Your task to perform on an android device: Is it going to rain this weekend? Image 0: 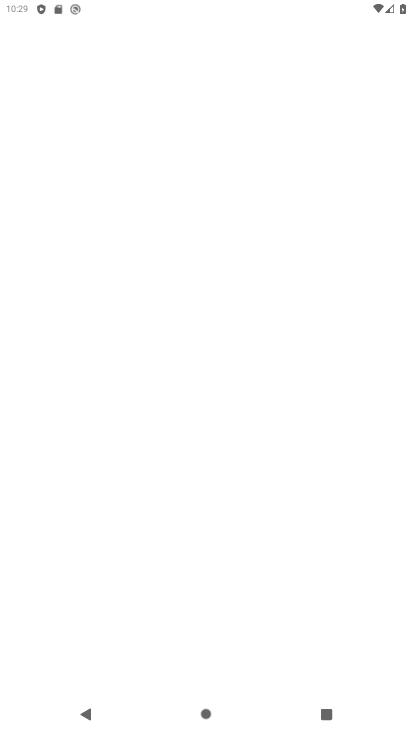
Step 0: press home button
Your task to perform on an android device: Is it going to rain this weekend? Image 1: 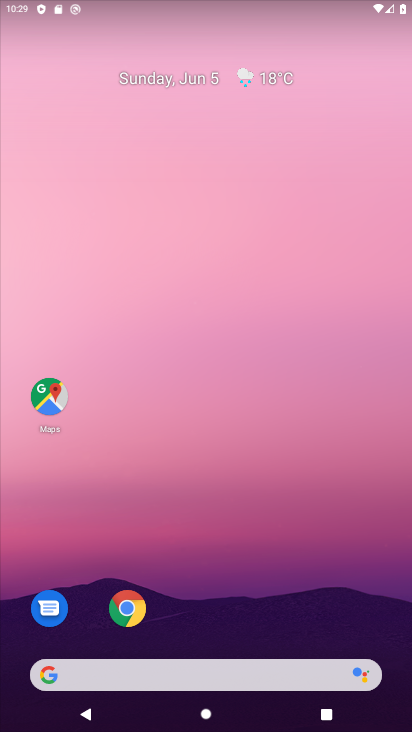
Step 1: click (191, 678)
Your task to perform on an android device: Is it going to rain this weekend? Image 2: 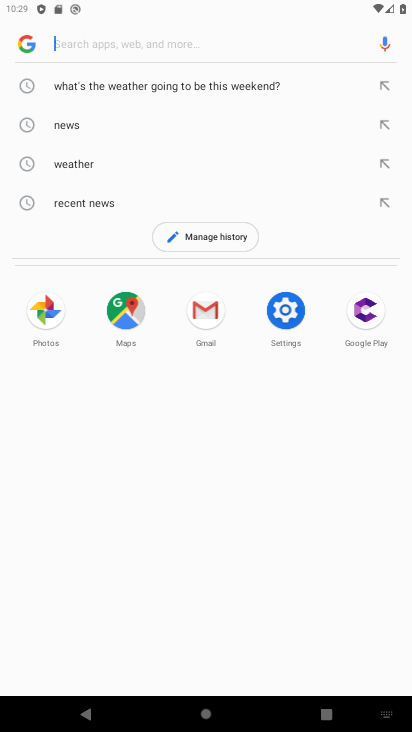
Step 2: type "is it going to rain this weekend"
Your task to perform on an android device: Is it going to rain this weekend? Image 3: 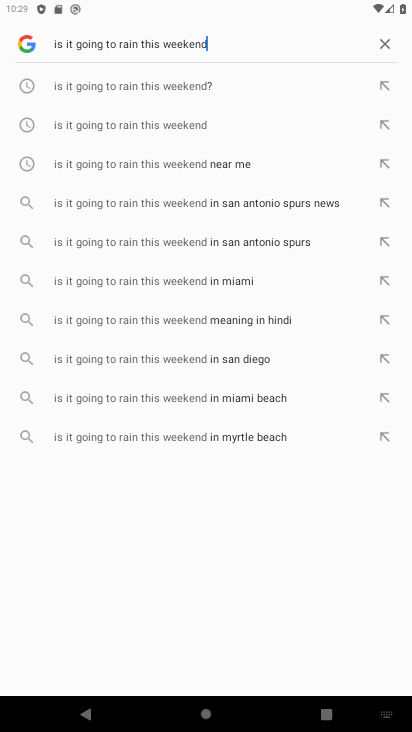
Step 3: click (132, 79)
Your task to perform on an android device: Is it going to rain this weekend? Image 4: 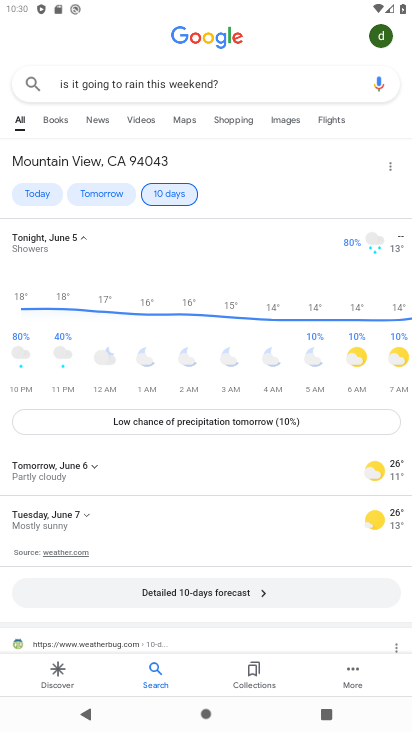
Step 4: click (196, 595)
Your task to perform on an android device: Is it going to rain this weekend? Image 5: 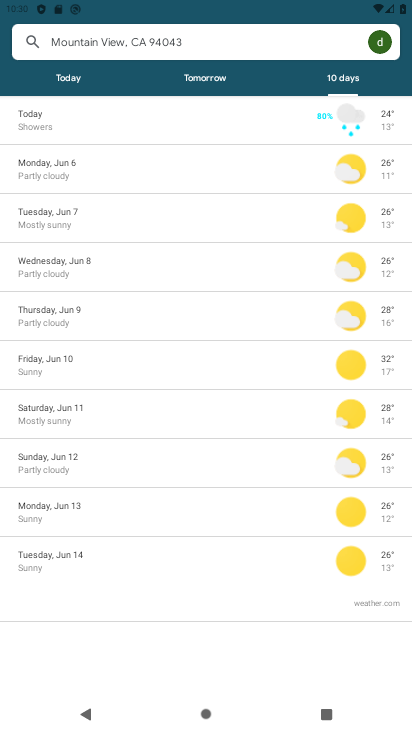
Step 5: task complete